Your task to perform on an android device: Open Google Chrome Image 0: 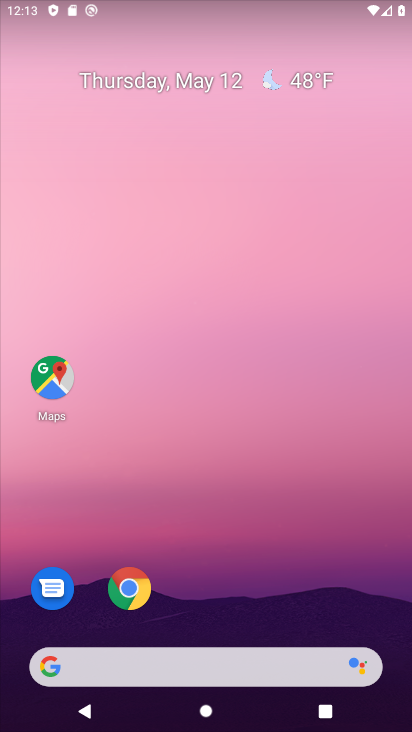
Step 0: drag from (231, 569) to (129, 100)
Your task to perform on an android device: Open Google Chrome Image 1: 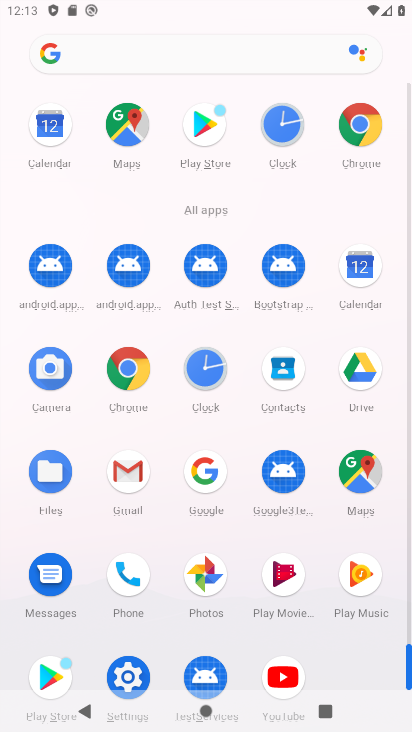
Step 1: click (354, 121)
Your task to perform on an android device: Open Google Chrome Image 2: 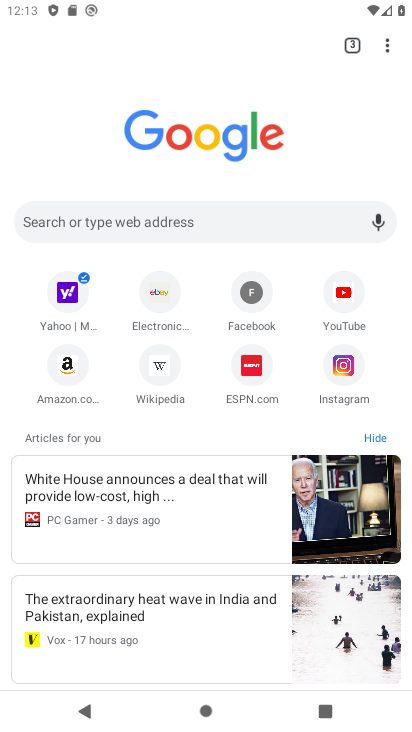
Step 2: task complete